Your task to perform on an android device: When is my next appointment? Image 0: 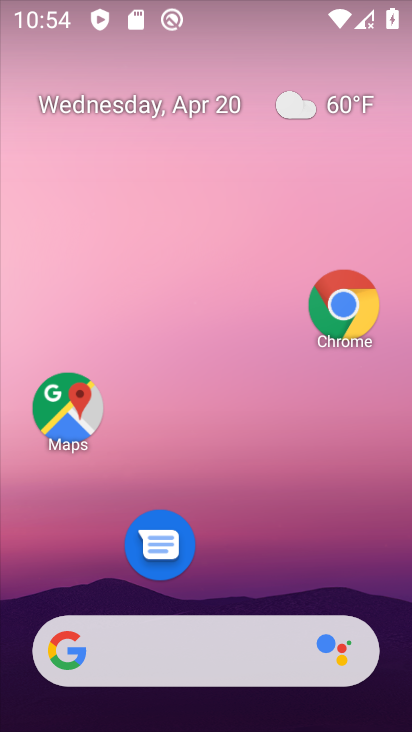
Step 0: drag from (225, 615) to (245, 109)
Your task to perform on an android device: When is my next appointment? Image 1: 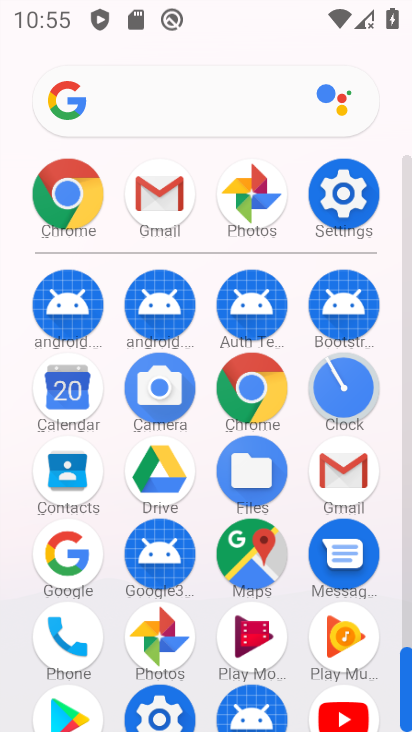
Step 1: click (63, 420)
Your task to perform on an android device: When is my next appointment? Image 2: 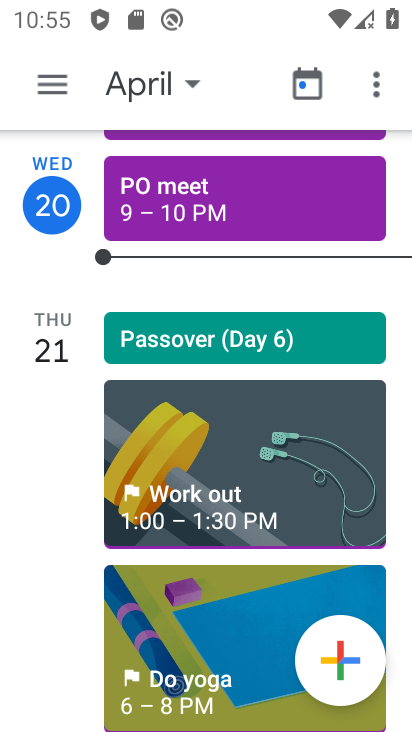
Step 2: task complete